Your task to perform on an android device: Clear all items from cart on costco.com. Add "apple airpods" to the cart on costco.com, then select checkout. Image 0: 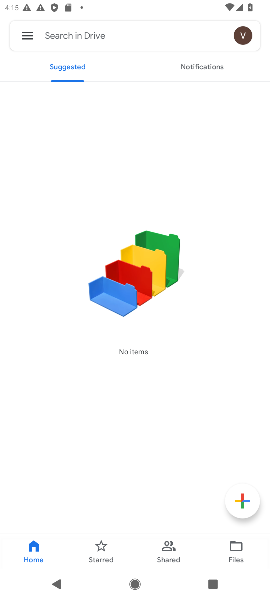
Step 0: press home button
Your task to perform on an android device: Clear all items from cart on costco.com. Add "apple airpods" to the cart on costco.com, then select checkout. Image 1: 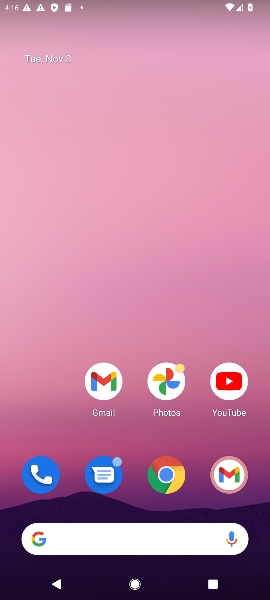
Step 1: drag from (114, 504) to (34, 0)
Your task to perform on an android device: Clear all items from cart on costco.com. Add "apple airpods" to the cart on costco.com, then select checkout. Image 2: 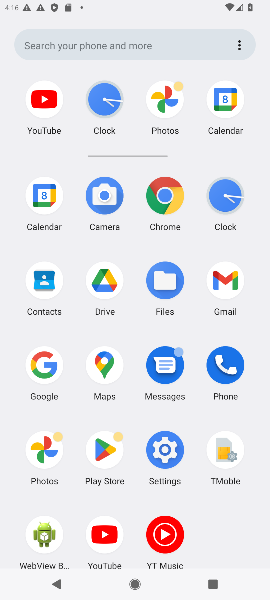
Step 2: click (43, 361)
Your task to perform on an android device: Clear all items from cart on costco.com. Add "apple airpods" to the cart on costco.com, then select checkout. Image 3: 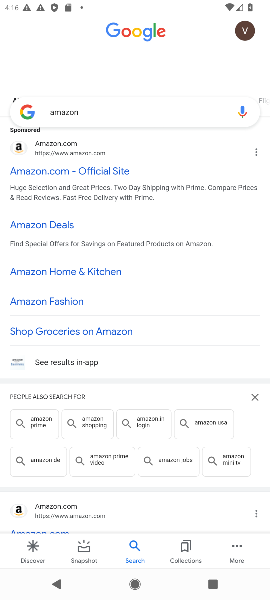
Step 3: click (91, 111)
Your task to perform on an android device: Clear all items from cart on costco.com. Add "apple airpods" to the cart on costco.com, then select checkout. Image 4: 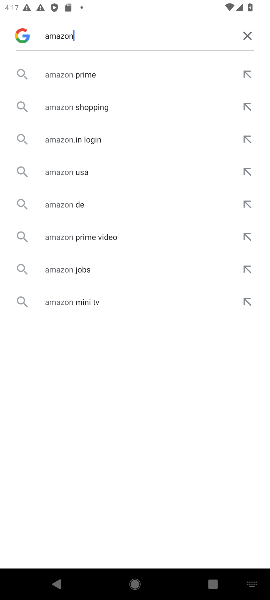
Step 4: click (67, 166)
Your task to perform on an android device: Clear all items from cart on costco.com. Add "apple airpods" to the cart on costco.com, then select checkout. Image 5: 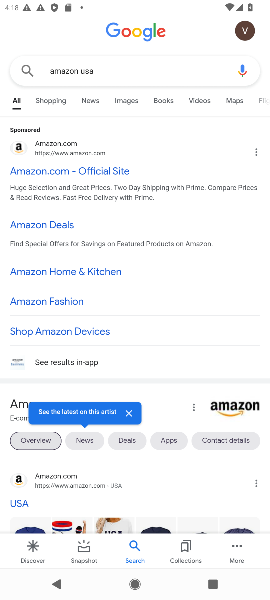
Step 5: click (10, 140)
Your task to perform on an android device: Clear all items from cart on costco.com. Add "apple airpods" to the cart on costco.com, then select checkout. Image 6: 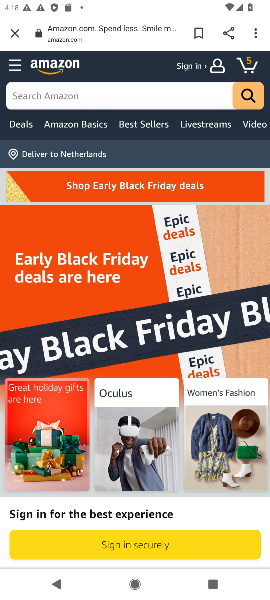
Step 6: click (98, 83)
Your task to perform on an android device: Clear all items from cart on costco.com. Add "apple airpods" to the cart on costco.com, then select checkout. Image 7: 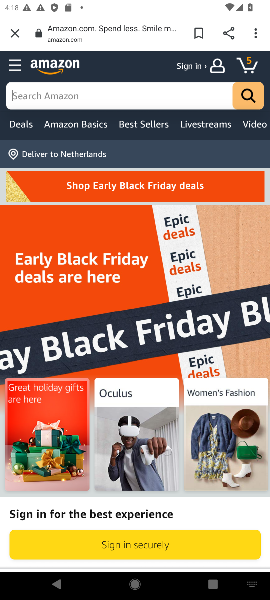
Step 7: click (102, 93)
Your task to perform on an android device: Clear all items from cart on costco.com. Add "apple airpods" to the cart on costco.com, then select checkout. Image 8: 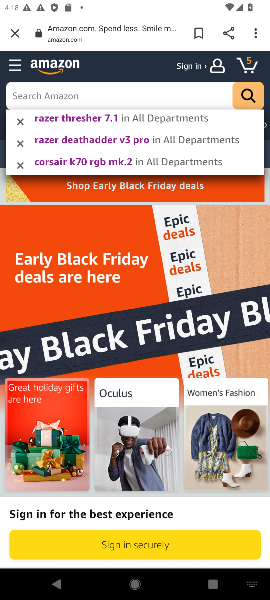
Step 8: type "apple airpods" "
Your task to perform on an android device: Clear all items from cart on costco.com. Add "apple airpods" to the cart on costco.com, then select checkout. Image 9: 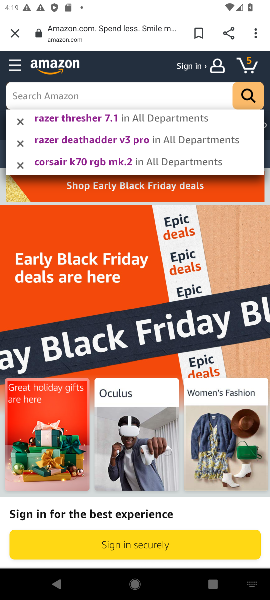
Step 9: click (89, 89)
Your task to perform on an android device: Clear all items from cart on costco.com. Add "apple airpods" to the cart on costco.com, then select checkout. Image 10: 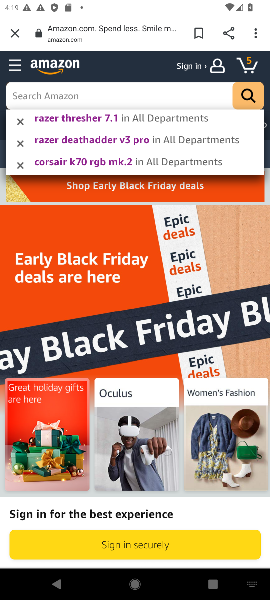
Step 10: click (89, 89)
Your task to perform on an android device: Clear all items from cart on costco.com. Add "apple airpods" to the cart on costco.com, then select checkout. Image 11: 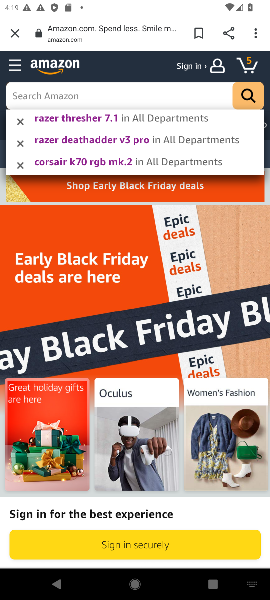
Step 11: type "apple airpod "
Your task to perform on an android device: Clear all items from cart on costco.com. Add "apple airpods" to the cart on costco.com, then select checkout. Image 12: 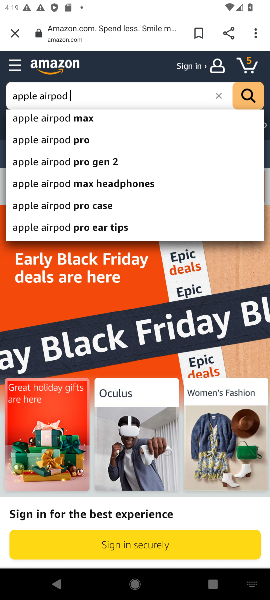
Step 12: click (29, 121)
Your task to perform on an android device: Clear all items from cart on costco.com. Add "apple airpods" to the cart on costco.com, then select checkout. Image 13: 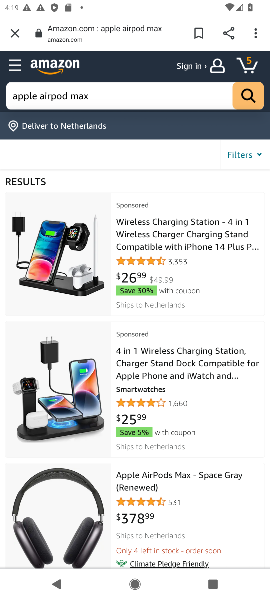
Step 13: drag from (156, 484) to (154, 145)
Your task to perform on an android device: Clear all items from cart on costco.com. Add "apple airpods" to the cart on costco.com, then select checkout. Image 14: 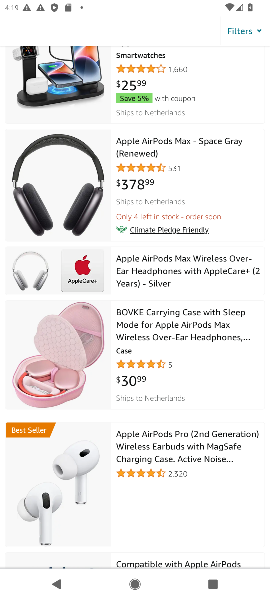
Step 14: drag from (163, 504) to (160, 314)
Your task to perform on an android device: Clear all items from cart on costco.com. Add "apple airpods" to the cart on costco.com, then select checkout. Image 15: 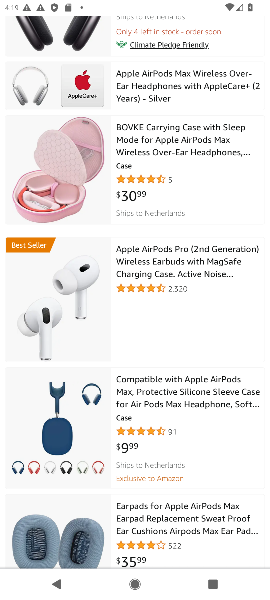
Step 15: click (162, 255)
Your task to perform on an android device: Clear all items from cart on costco.com. Add "apple airpods" to the cart on costco.com, then select checkout. Image 16: 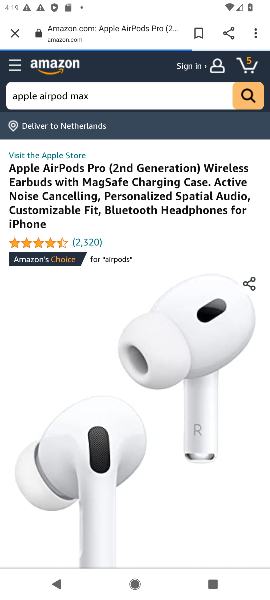
Step 16: drag from (188, 441) to (188, 228)
Your task to perform on an android device: Clear all items from cart on costco.com. Add "apple airpods" to the cart on costco.com, then select checkout. Image 17: 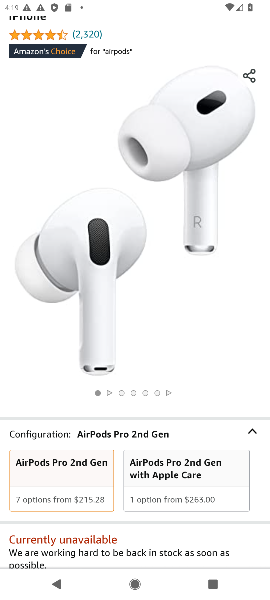
Step 17: drag from (128, 467) to (137, 143)
Your task to perform on an android device: Clear all items from cart on costco.com. Add "apple airpods" to the cart on costco.com, then select checkout. Image 18: 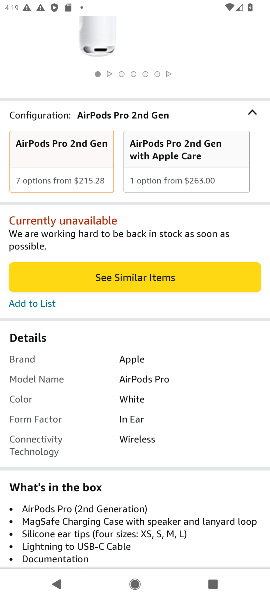
Step 18: click (136, 268)
Your task to perform on an android device: Clear all items from cart on costco.com. Add "apple airpods" to the cart on costco.com, then select checkout. Image 19: 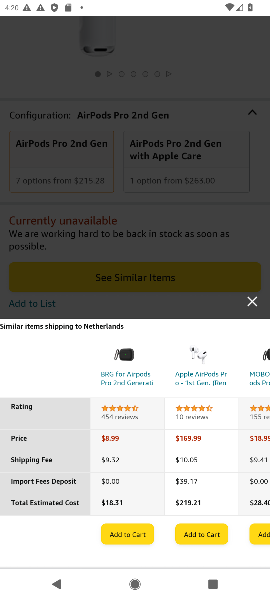
Step 19: click (194, 536)
Your task to perform on an android device: Clear all items from cart on costco.com. Add "apple airpods" to the cart on costco.com, then select checkout. Image 20: 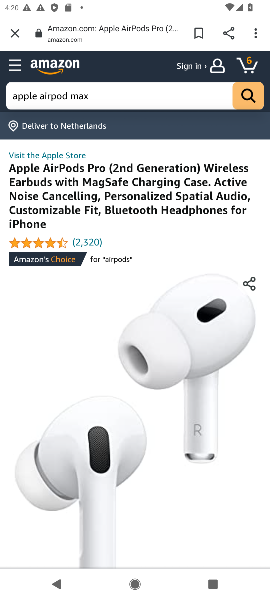
Step 20: task complete